Your task to perform on an android device: Open sound settings Image 0: 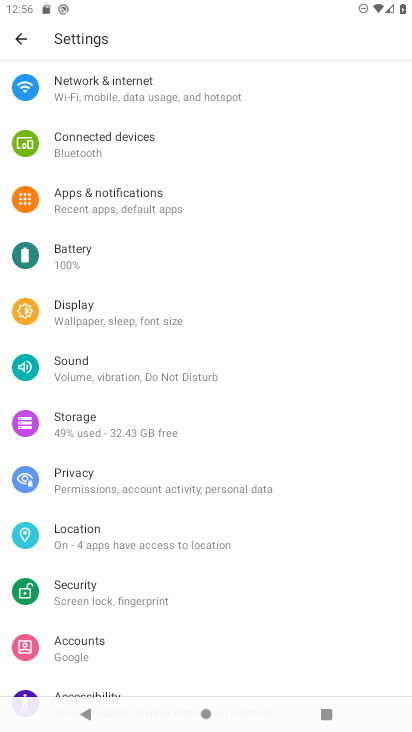
Step 0: click (85, 366)
Your task to perform on an android device: Open sound settings Image 1: 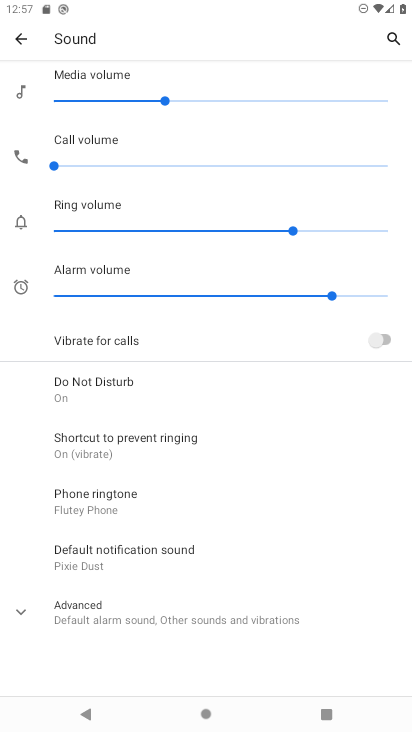
Step 1: task complete